Your task to perform on an android device: change your default location settings in chrome Image 0: 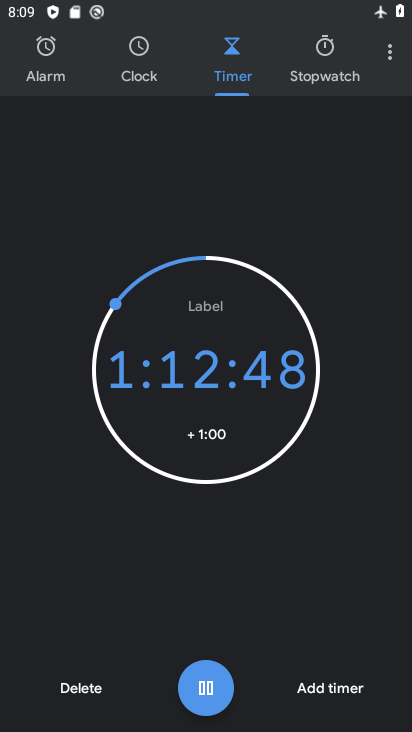
Step 0: press home button
Your task to perform on an android device: change your default location settings in chrome Image 1: 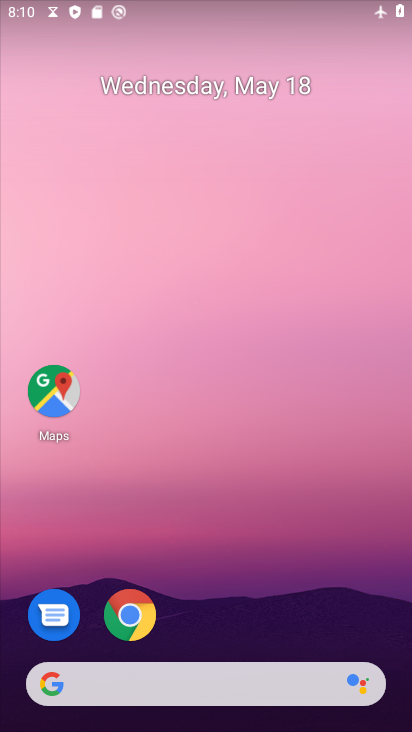
Step 1: press home button
Your task to perform on an android device: change your default location settings in chrome Image 2: 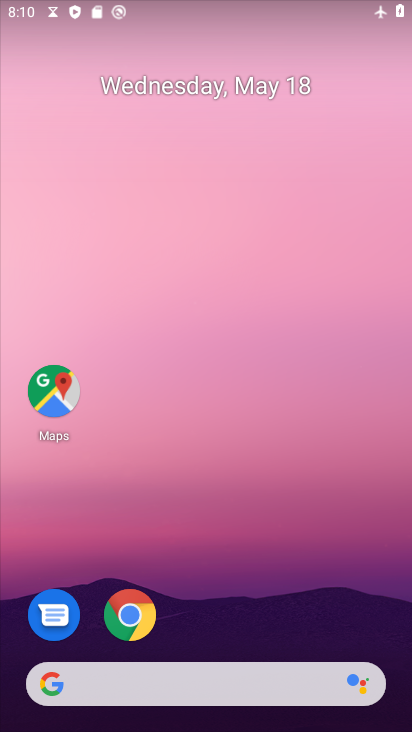
Step 2: click (125, 618)
Your task to perform on an android device: change your default location settings in chrome Image 3: 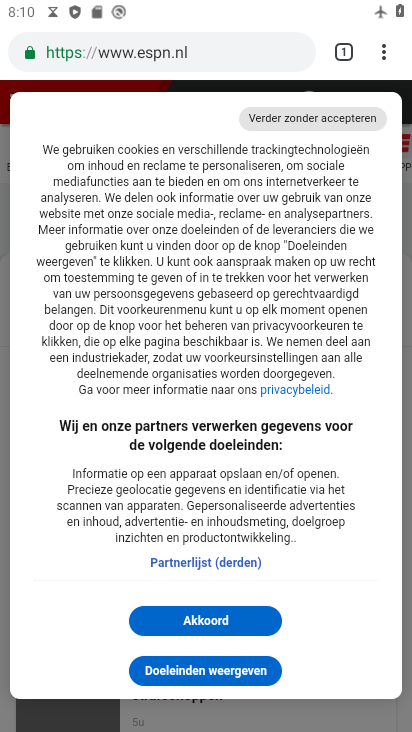
Step 3: click (387, 51)
Your task to perform on an android device: change your default location settings in chrome Image 4: 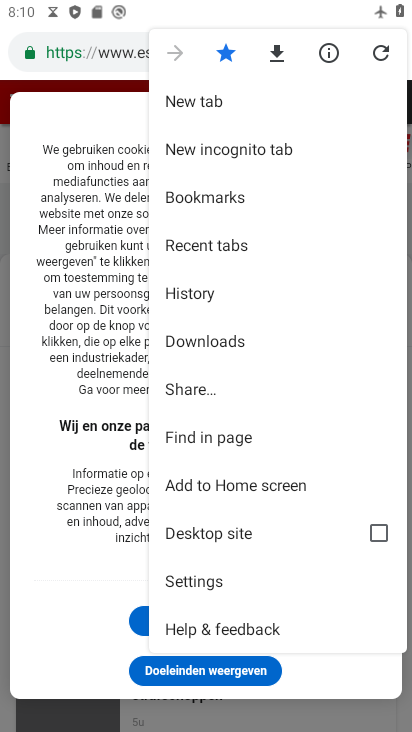
Step 4: click (234, 589)
Your task to perform on an android device: change your default location settings in chrome Image 5: 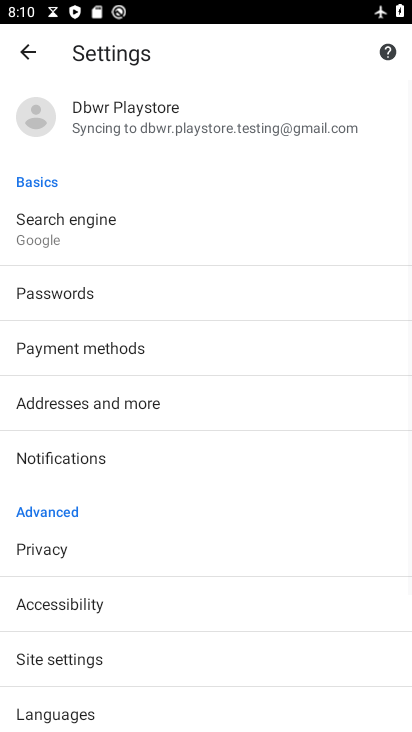
Step 5: click (107, 648)
Your task to perform on an android device: change your default location settings in chrome Image 6: 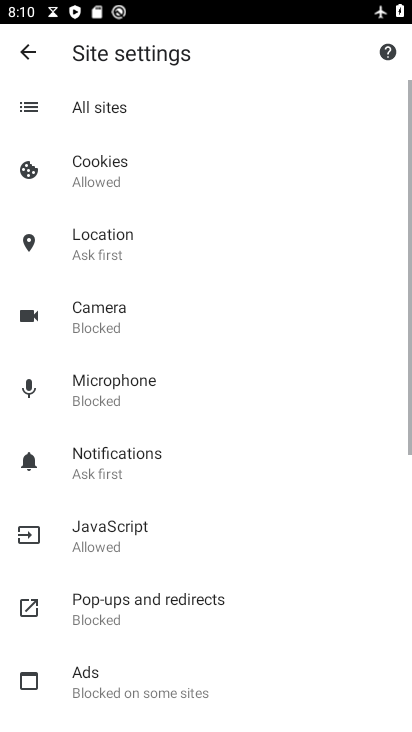
Step 6: click (116, 235)
Your task to perform on an android device: change your default location settings in chrome Image 7: 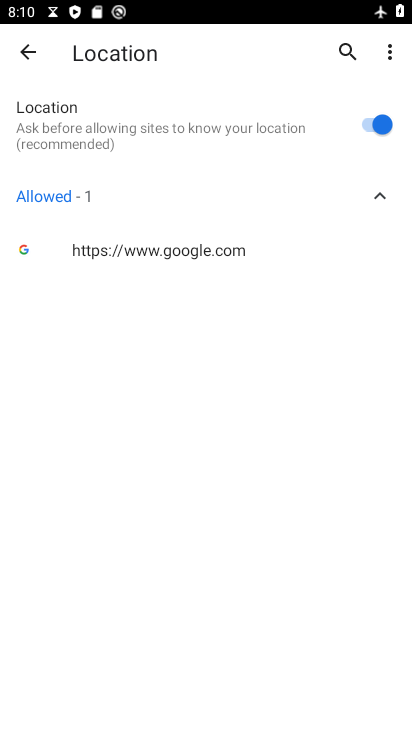
Step 7: click (363, 126)
Your task to perform on an android device: change your default location settings in chrome Image 8: 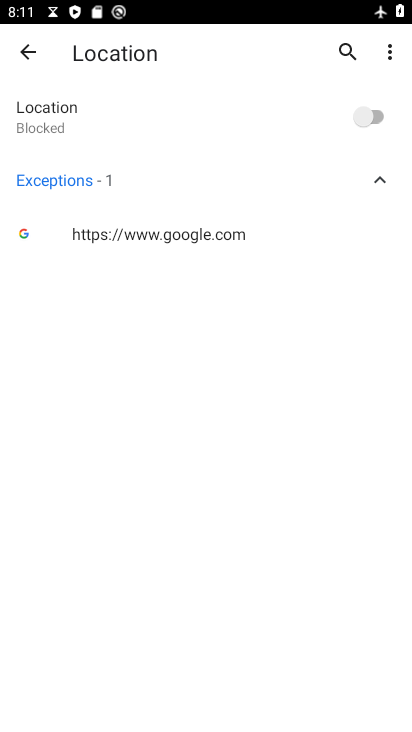
Step 8: task complete